Your task to perform on an android device: Add "duracell triple a" to the cart on costco.com Image 0: 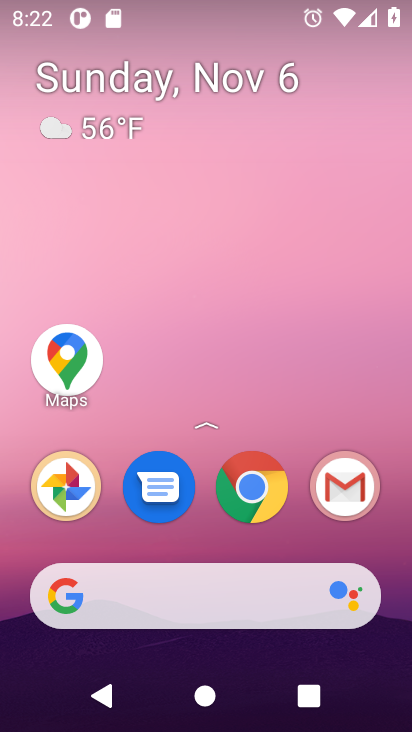
Step 0: click (236, 491)
Your task to perform on an android device: Add "duracell triple a" to the cart on costco.com Image 1: 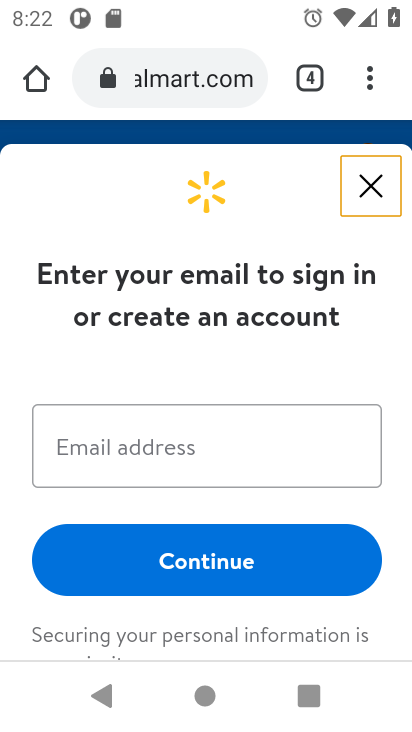
Step 1: click (231, 76)
Your task to perform on an android device: Add "duracell triple a" to the cart on costco.com Image 2: 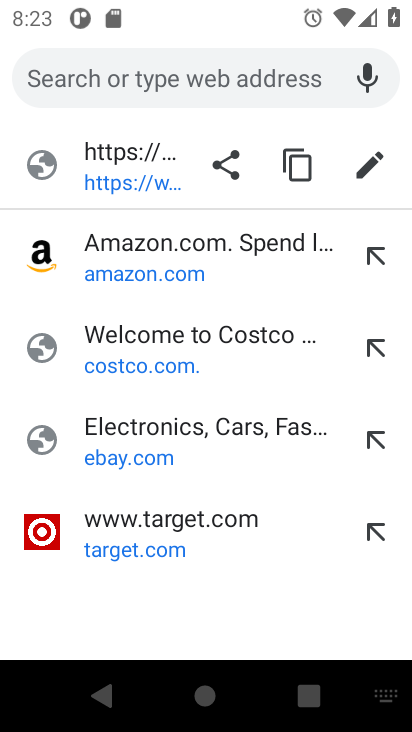
Step 2: click (206, 372)
Your task to perform on an android device: Add "duracell triple a" to the cart on costco.com Image 3: 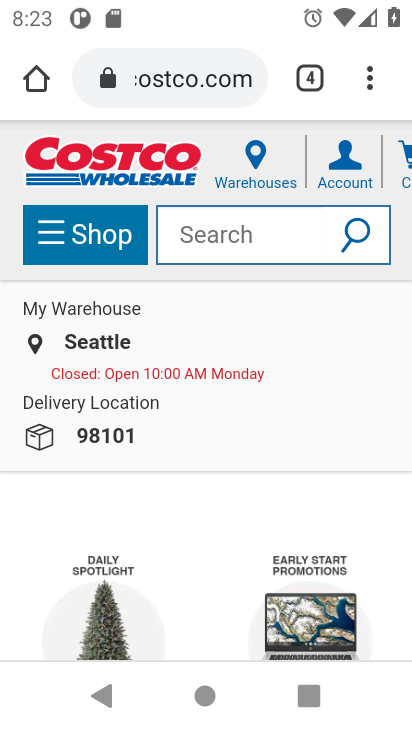
Step 3: click (181, 238)
Your task to perform on an android device: Add "duracell triple a" to the cart on costco.com Image 4: 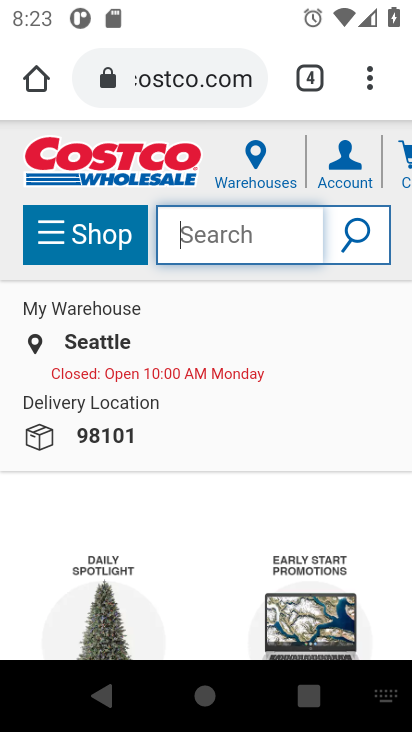
Step 4: type "duracell triple a"
Your task to perform on an android device: Add "duracell triple a" to the cart on costco.com Image 5: 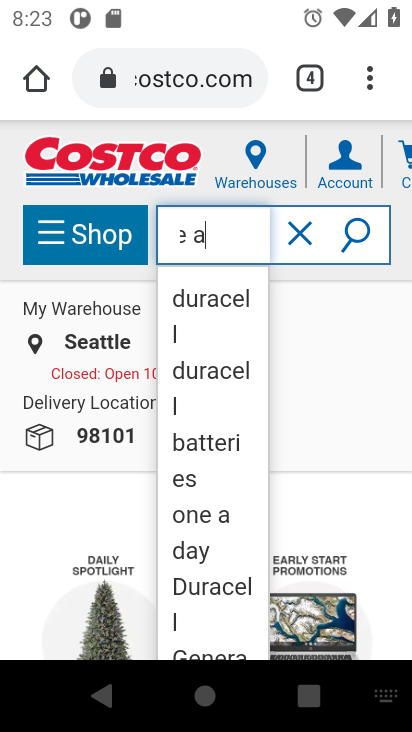
Step 5: click (367, 226)
Your task to perform on an android device: Add "duracell triple a" to the cart on costco.com Image 6: 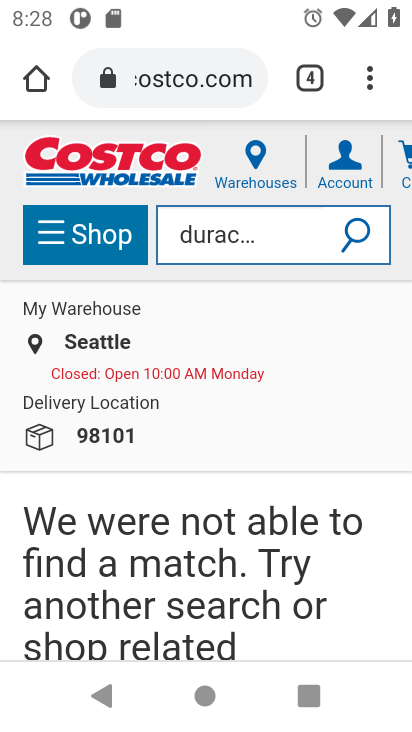
Step 6: task complete